Your task to perform on an android device: Open calendar and show me the third week of next month Image 0: 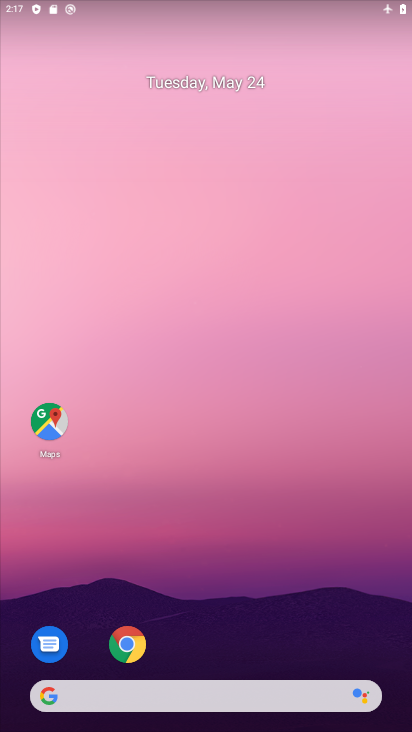
Step 0: drag from (232, 599) to (226, 101)
Your task to perform on an android device: Open calendar and show me the third week of next month Image 1: 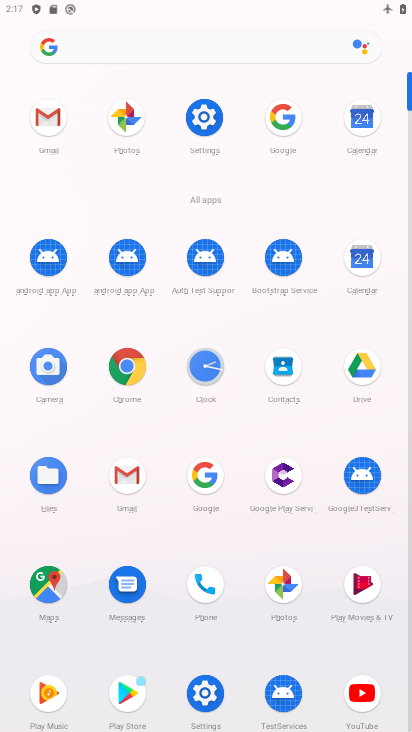
Step 1: click (358, 264)
Your task to perform on an android device: Open calendar and show me the third week of next month Image 2: 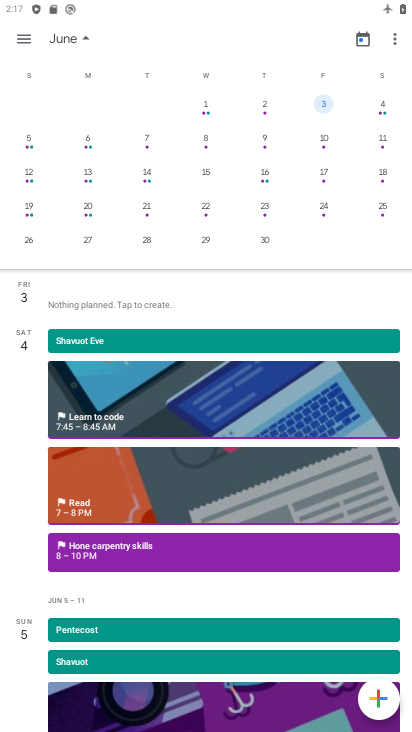
Step 2: click (257, 175)
Your task to perform on an android device: Open calendar and show me the third week of next month Image 3: 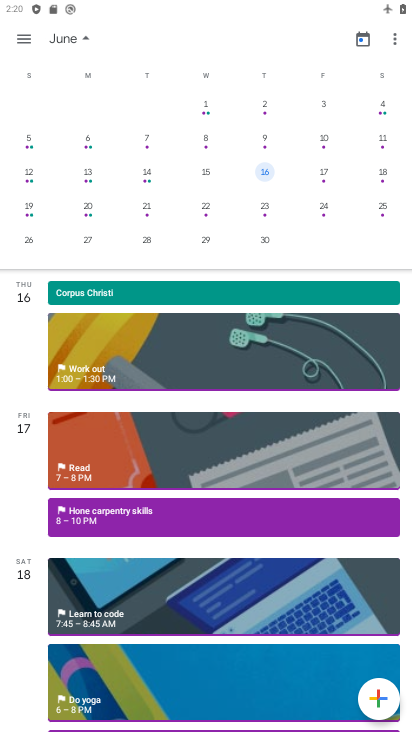
Step 3: task complete